Your task to perform on an android device: Open notification settings Image 0: 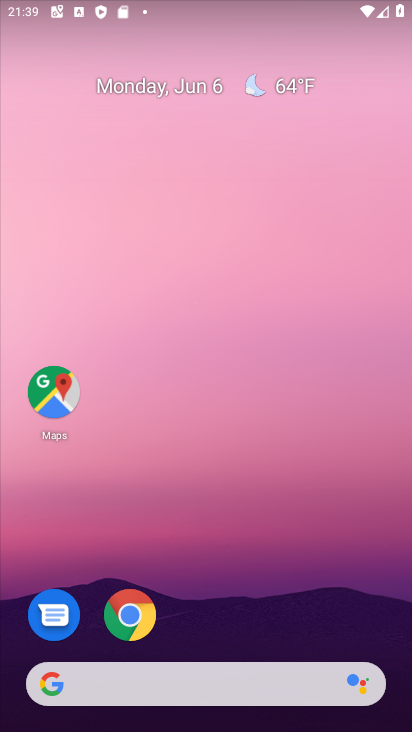
Step 0: drag from (393, 710) to (385, 0)
Your task to perform on an android device: Open notification settings Image 1: 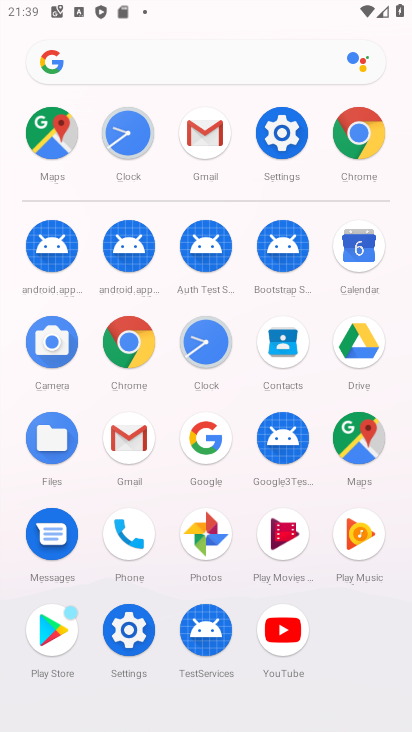
Step 1: click (272, 130)
Your task to perform on an android device: Open notification settings Image 2: 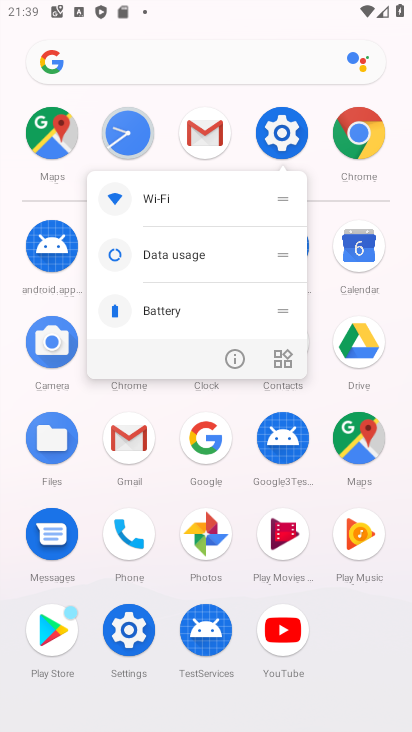
Step 2: click (275, 150)
Your task to perform on an android device: Open notification settings Image 3: 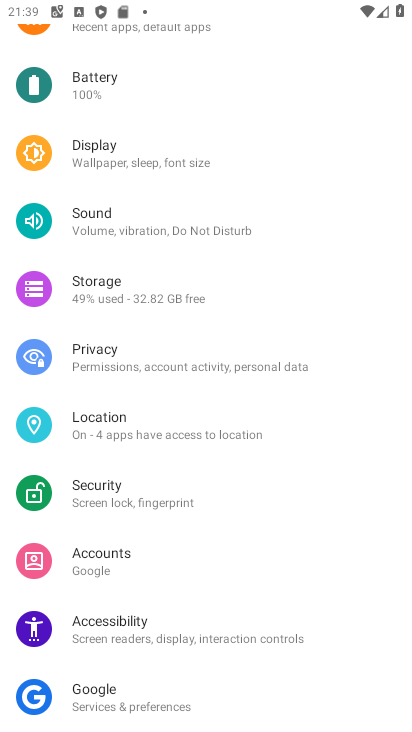
Step 3: drag from (161, 72) to (190, 504)
Your task to perform on an android device: Open notification settings Image 4: 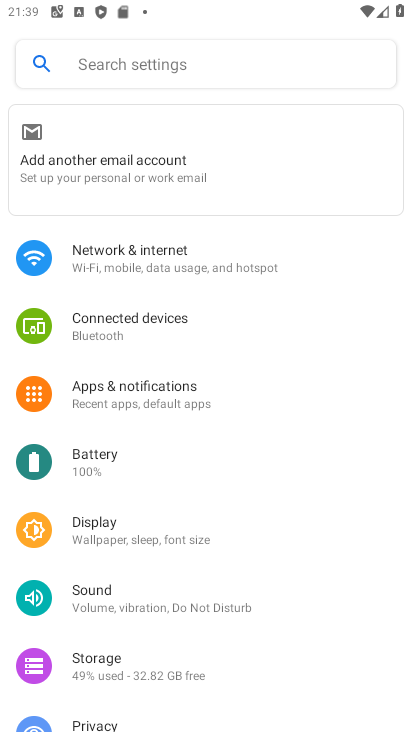
Step 4: click (130, 389)
Your task to perform on an android device: Open notification settings Image 5: 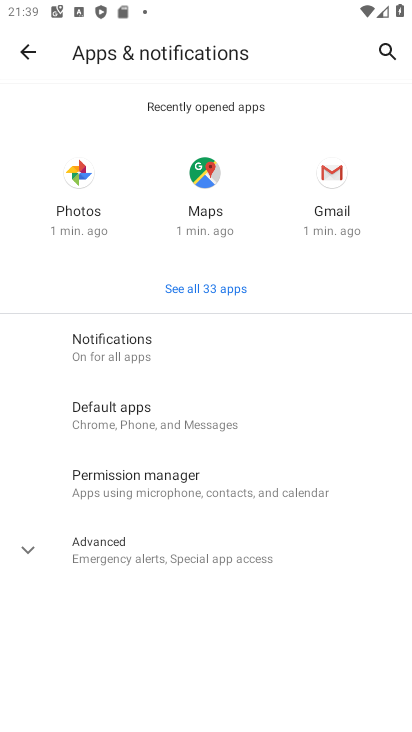
Step 5: click (110, 335)
Your task to perform on an android device: Open notification settings Image 6: 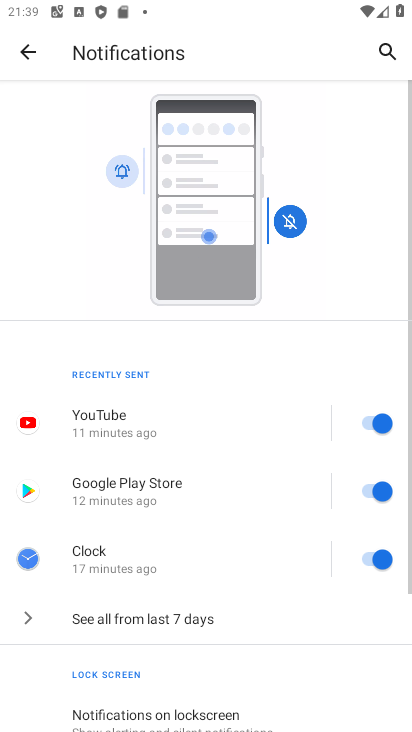
Step 6: drag from (226, 705) to (252, 287)
Your task to perform on an android device: Open notification settings Image 7: 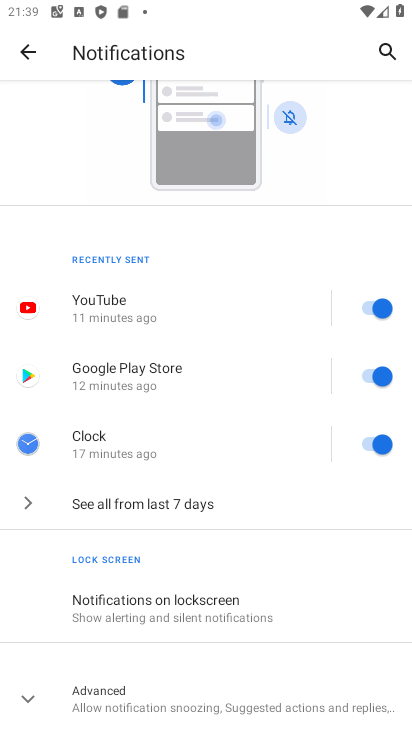
Step 7: click (28, 700)
Your task to perform on an android device: Open notification settings Image 8: 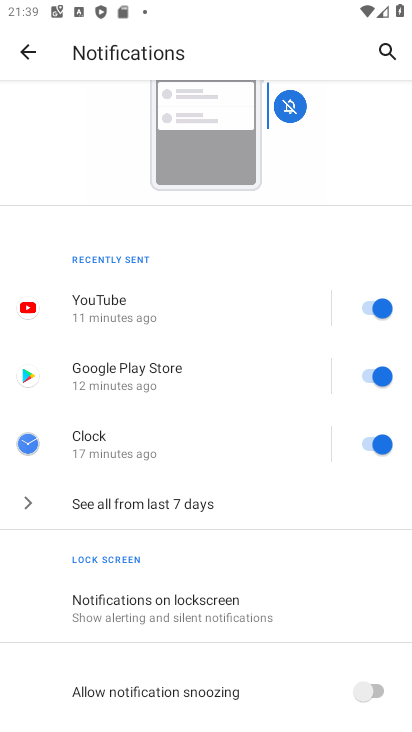
Step 8: task complete